Your task to perform on an android device: manage bookmarks in the chrome app Image 0: 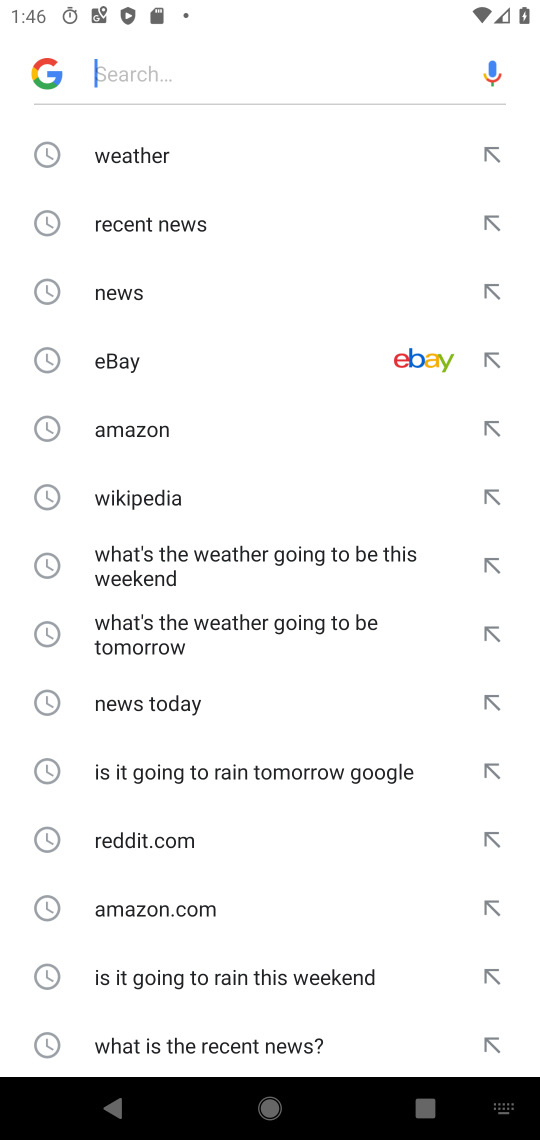
Step 0: press home button
Your task to perform on an android device: manage bookmarks in the chrome app Image 1: 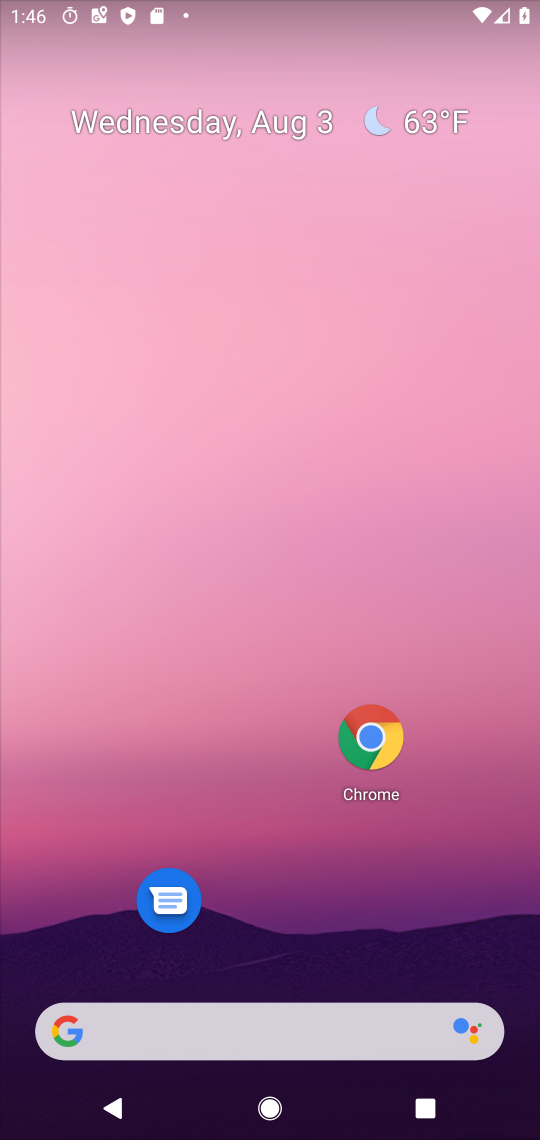
Step 1: drag from (288, 905) to (302, 41)
Your task to perform on an android device: manage bookmarks in the chrome app Image 2: 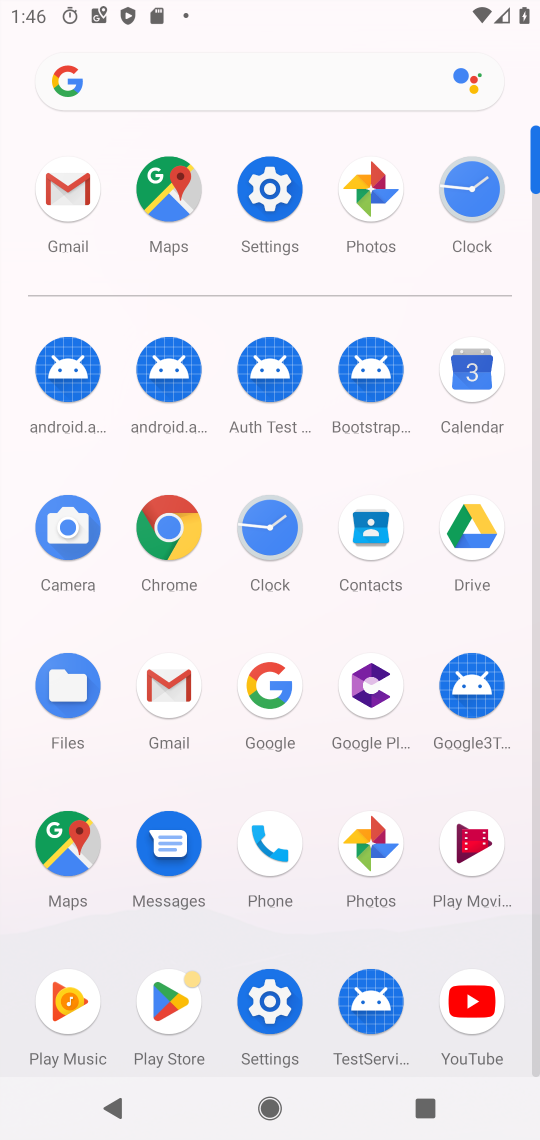
Step 2: click (160, 531)
Your task to perform on an android device: manage bookmarks in the chrome app Image 3: 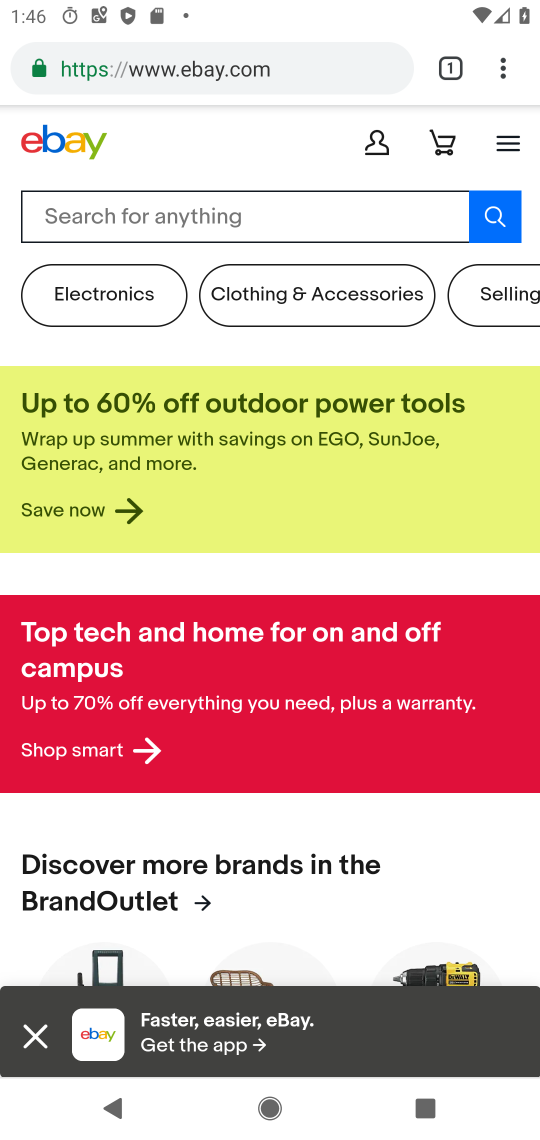
Step 3: drag from (499, 58) to (273, 339)
Your task to perform on an android device: manage bookmarks in the chrome app Image 4: 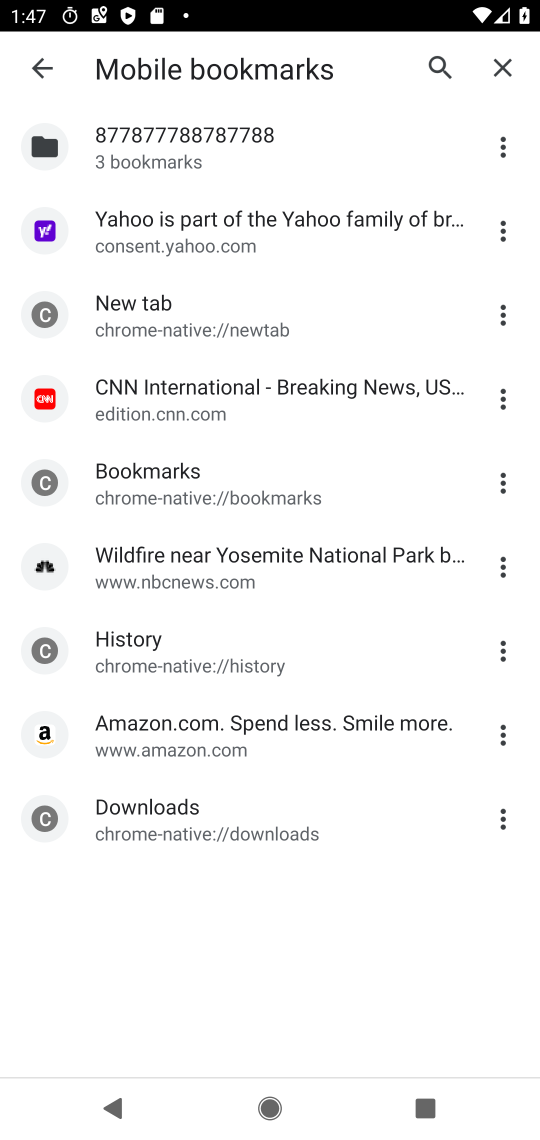
Step 4: click (510, 812)
Your task to perform on an android device: manage bookmarks in the chrome app Image 5: 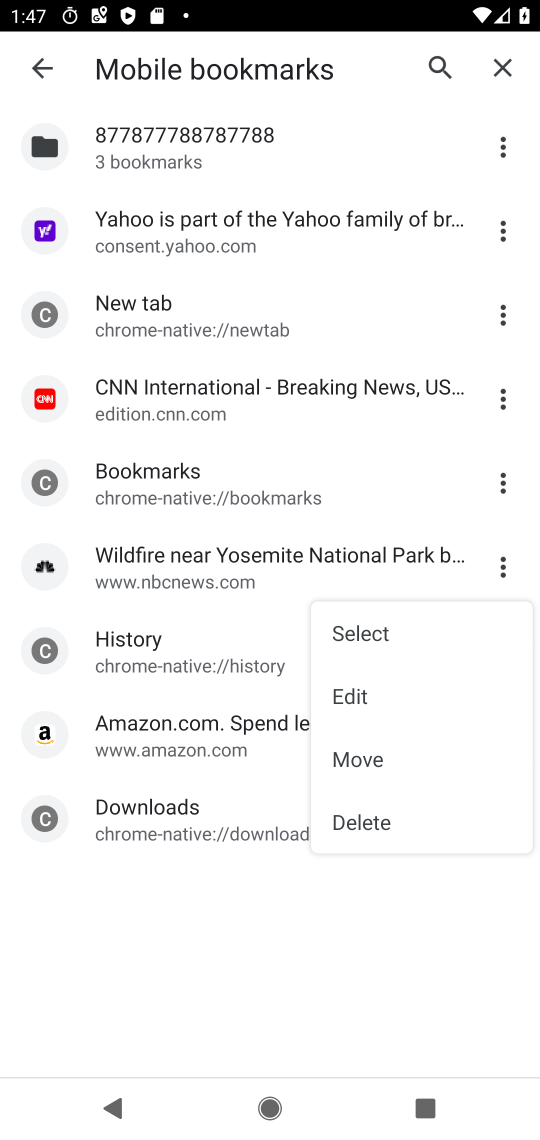
Step 5: click (365, 821)
Your task to perform on an android device: manage bookmarks in the chrome app Image 6: 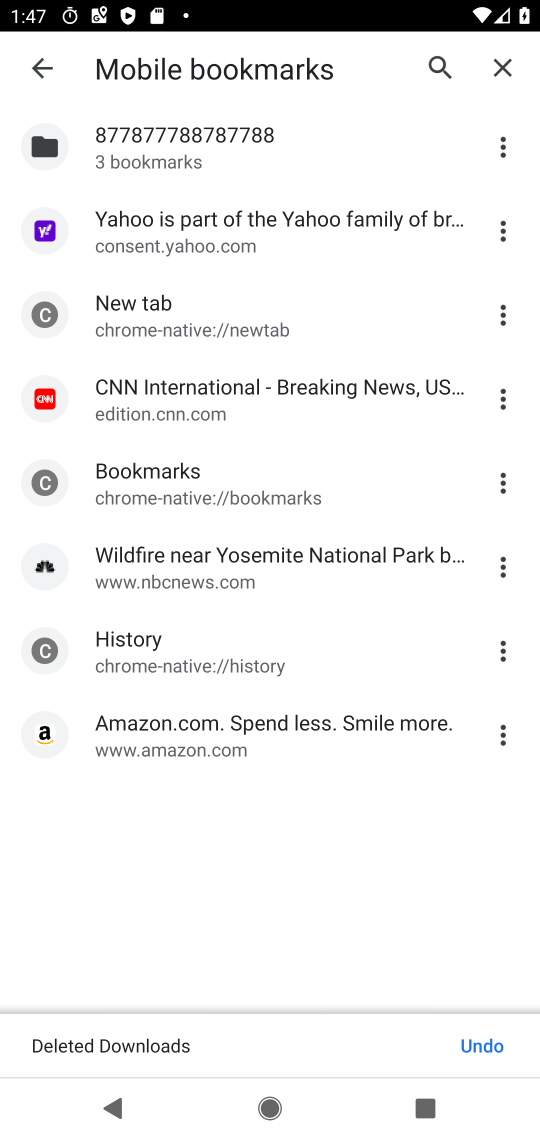
Step 6: task complete